Your task to perform on an android device: Open the stopwatch Image 0: 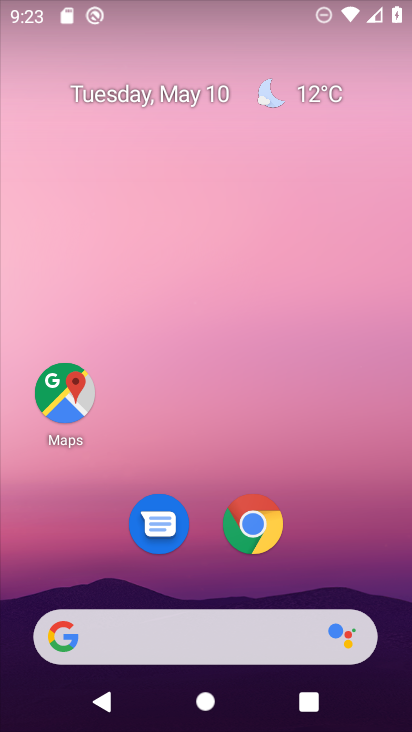
Step 0: drag from (326, 521) to (336, 29)
Your task to perform on an android device: Open the stopwatch Image 1: 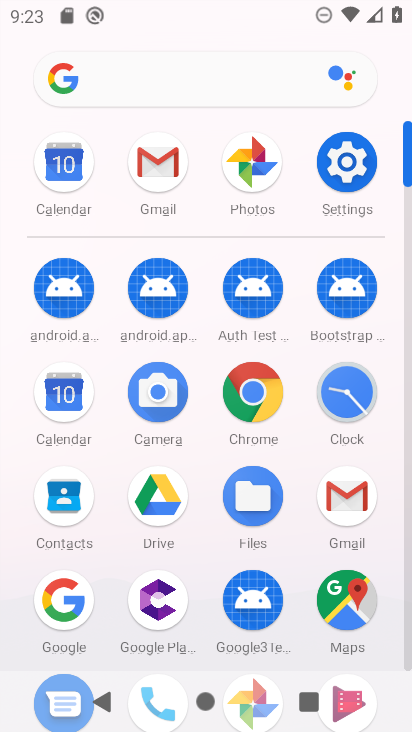
Step 1: click (344, 393)
Your task to perform on an android device: Open the stopwatch Image 2: 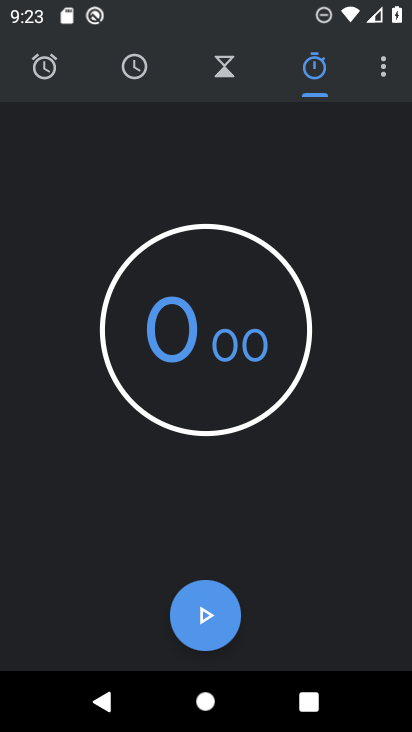
Step 2: task complete